Your task to perform on an android device: turn off smart reply in the gmail app Image 0: 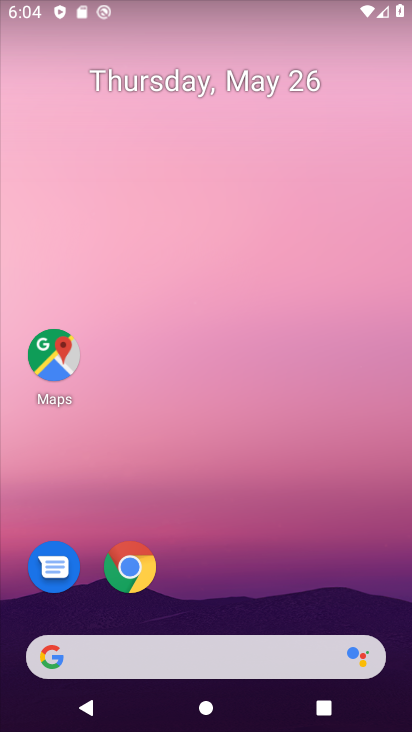
Step 0: drag from (184, 640) to (282, 230)
Your task to perform on an android device: turn off smart reply in the gmail app Image 1: 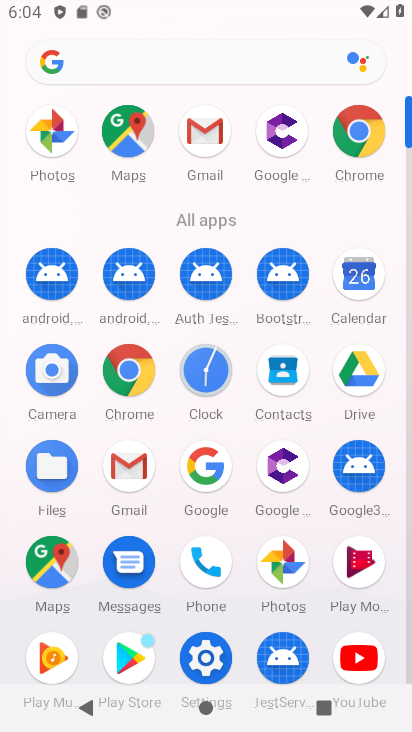
Step 1: click (118, 469)
Your task to perform on an android device: turn off smart reply in the gmail app Image 2: 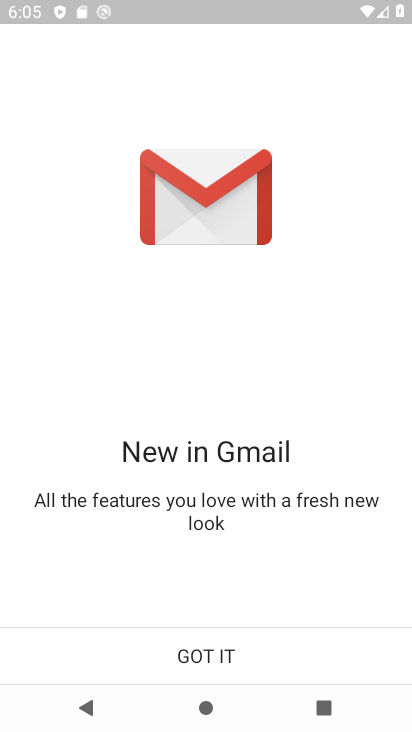
Step 2: click (222, 660)
Your task to perform on an android device: turn off smart reply in the gmail app Image 3: 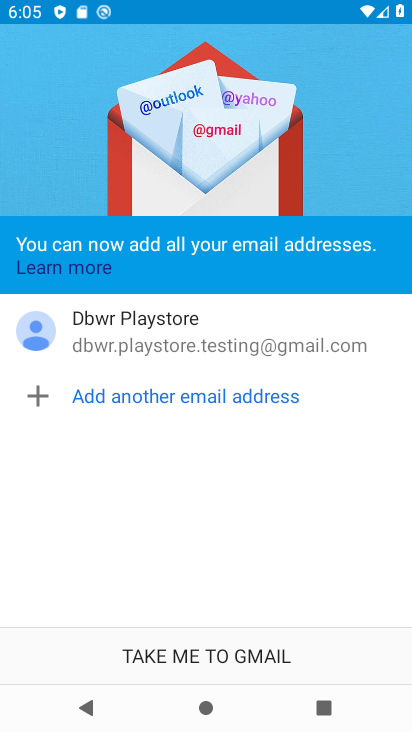
Step 3: click (142, 665)
Your task to perform on an android device: turn off smart reply in the gmail app Image 4: 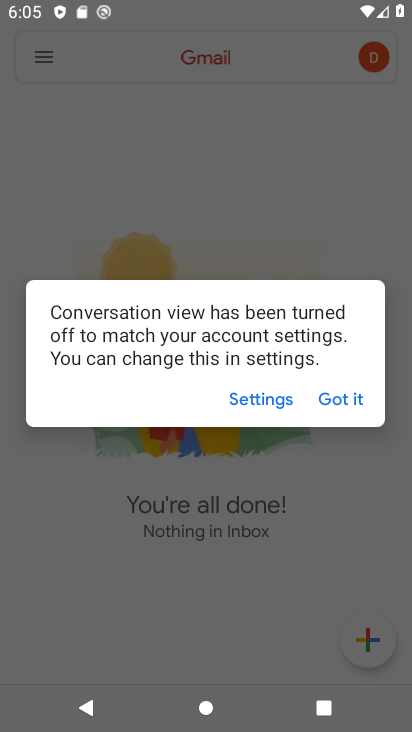
Step 4: click (347, 408)
Your task to perform on an android device: turn off smart reply in the gmail app Image 5: 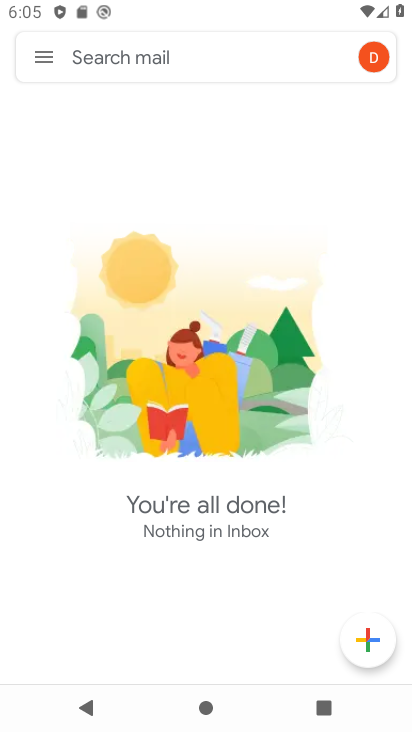
Step 5: click (46, 62)
Your task to perform on an android device: turn off smart reply in the gmail app Image 6: 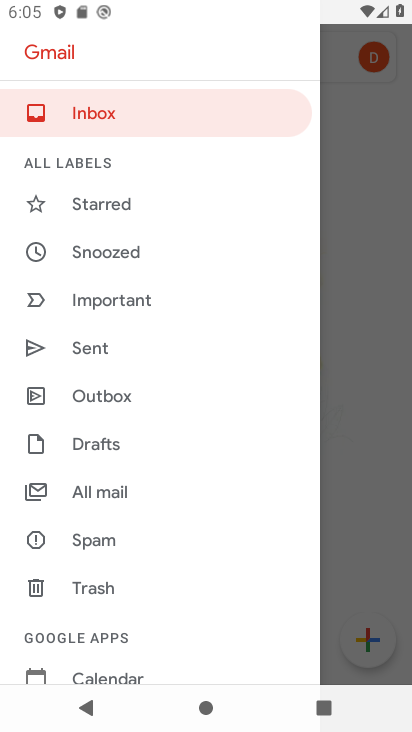
Step 6: drag from (92, 621) to (208, 188)
Your task to perform on an android device: turn off smart reply in the gmail app Image 7: 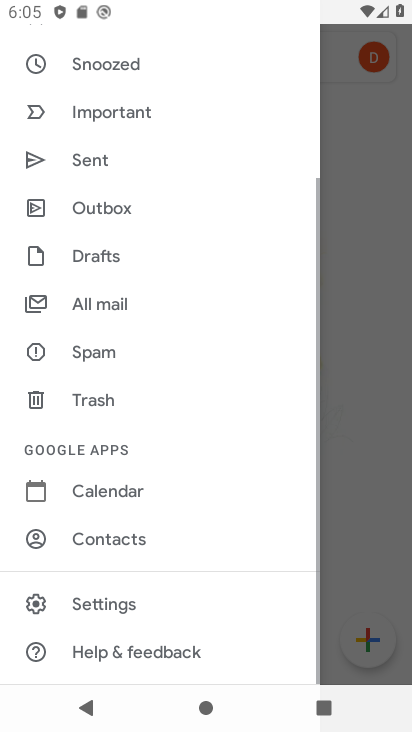
Step 7: click (84, 615)
Your task to perform on an android device: turn off smart reply in the gmail app Image 8: 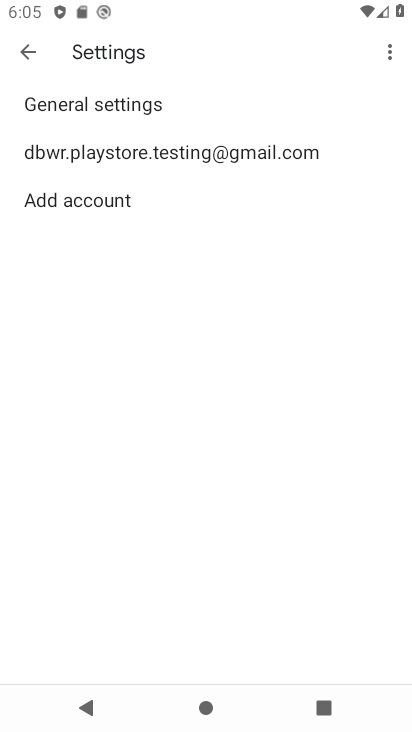
Step 8: click (130, 147)
Your task to perform on an android device: turn off smart reply in the gmail app Image 9: 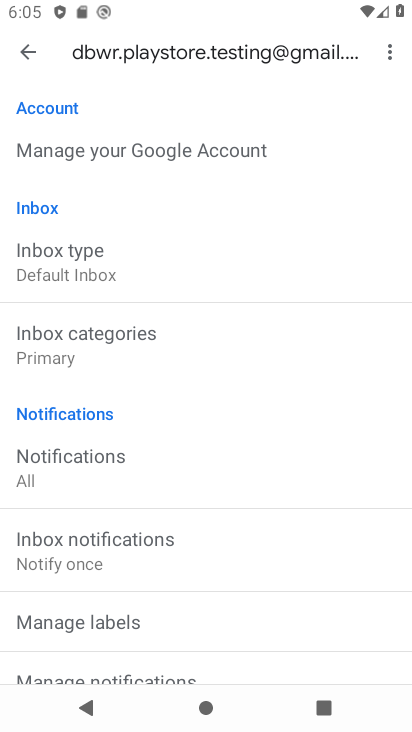
Step 9: drag from (72, 666) to (228, 136)
Your task to perform on an android device: turn off smart reply in the gmail app Image 10: 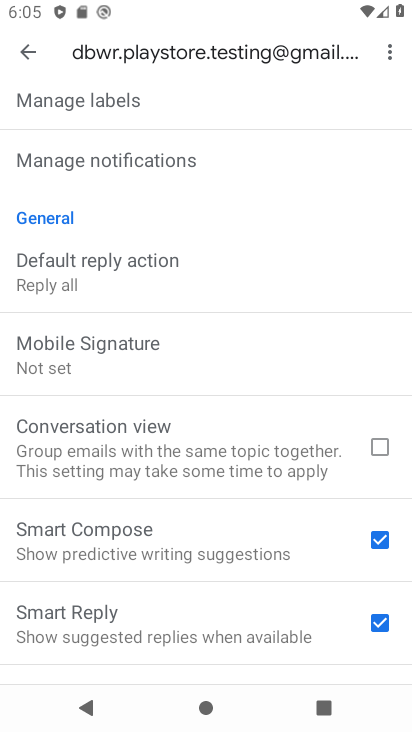
Step 10: click (376, 625)
Your task to perform on an android device: turn off smart reply in the gmail app Image 11: 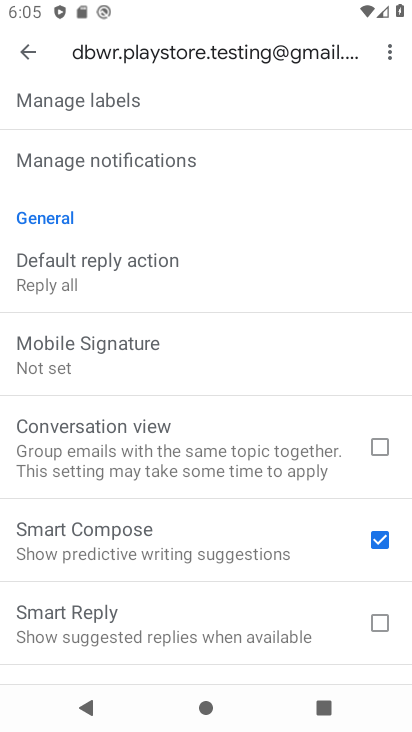
Step 11: task complete